Your task to perform on an android device: allow cookies in the chrome app Image 0: 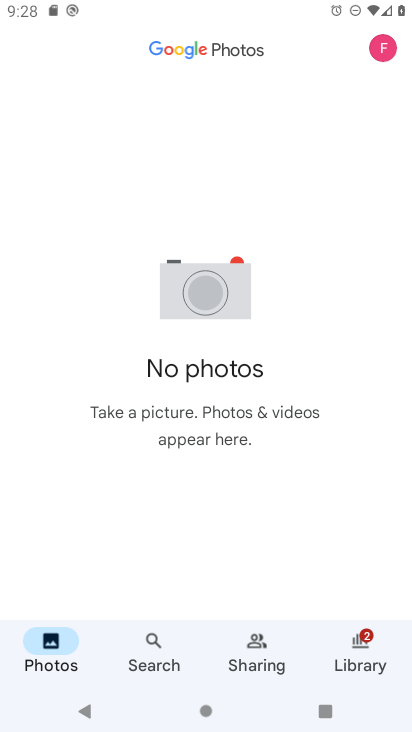
Step 0: press home button
Your task to perform on an android device: allow cookies in the chrome app Image 1: 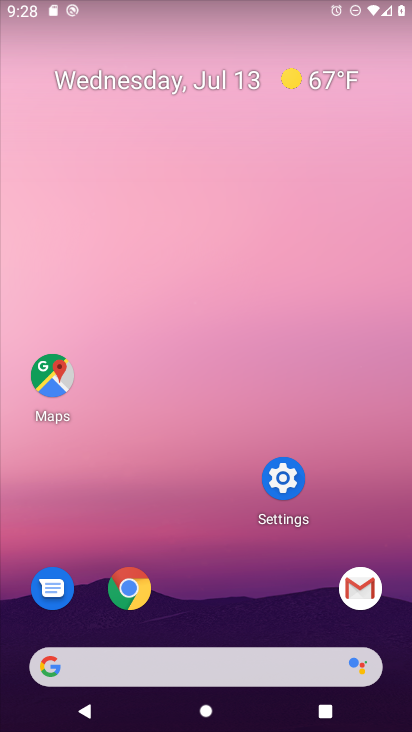
Step 1: click (122, 594)
Your task to perform on an android device: allow cookies in the chrome app Image 2: 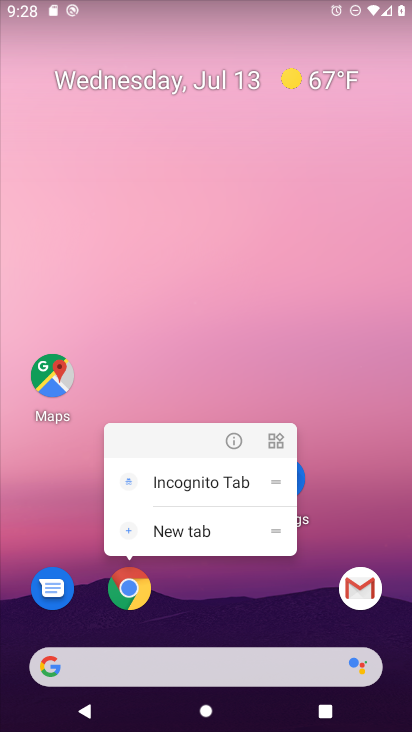
Step 2: click (122, 594)
Your task to perform on an android device: allow cookies in the chrome app Image 3: 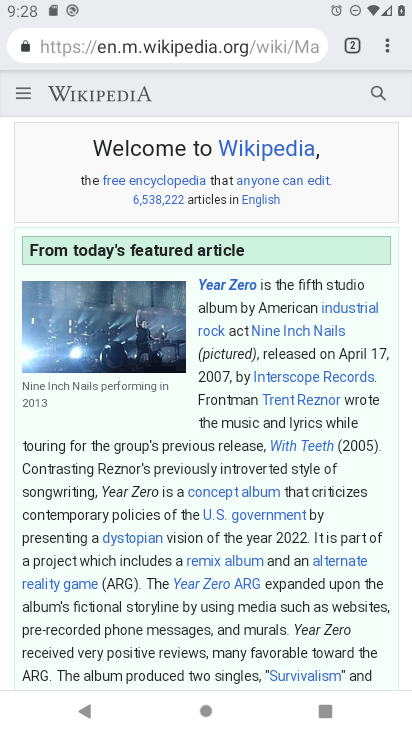
Step 3: click (387, 54)
Your task to perform on an android device: allow cookies in the chrome app Image 4: 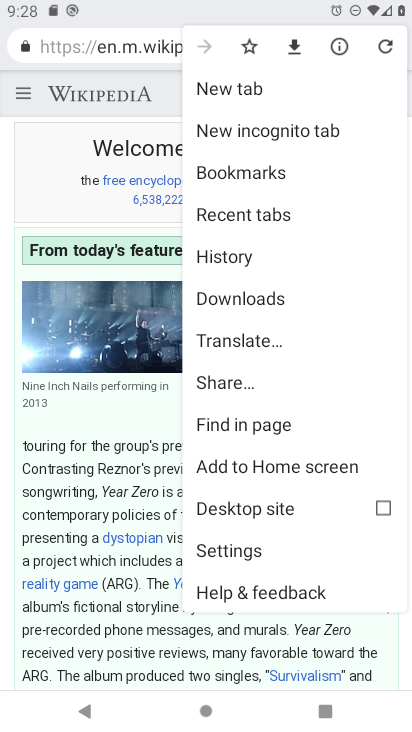
Step 4: click (225, 552)
Your task to perform on an android device: allow cookies in the chrome app Image 5: 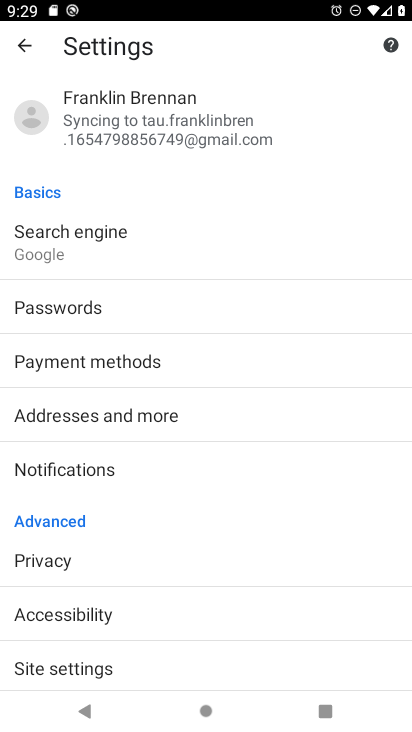
Step 5: click (83, 664)
Your task to perform on an android device: allow cookies in the chrome app Image 6: 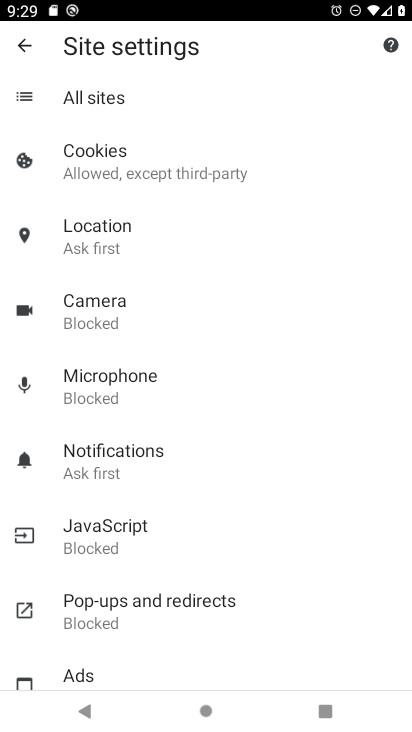
Step 6: click (145, 112)
Your task to perform on an android device: allow cookies in the chrome app Image 7: 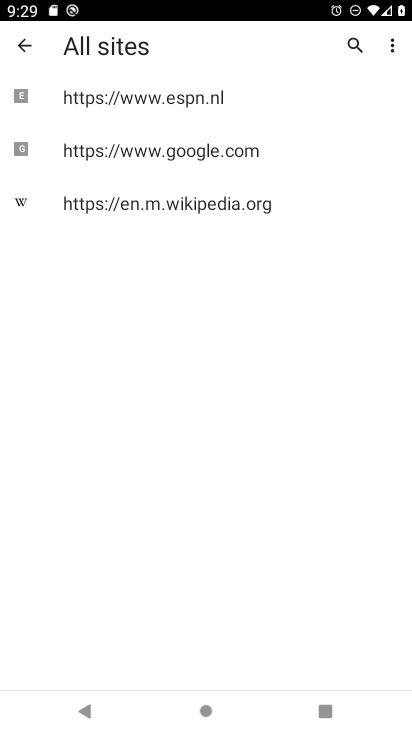
Step 7: click (32, 46)
Your task to perform on an android device: allow cookies in the chrome app Image 8: 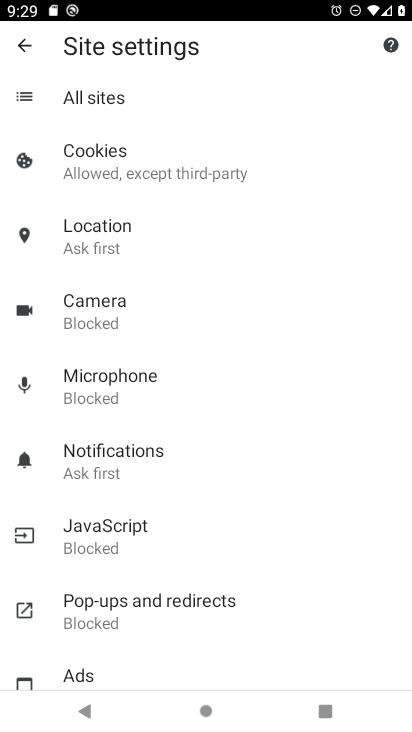
Step 8: click (109, 170)
Your task to perform on an android device: allow cookies in the chrome app Image 9: 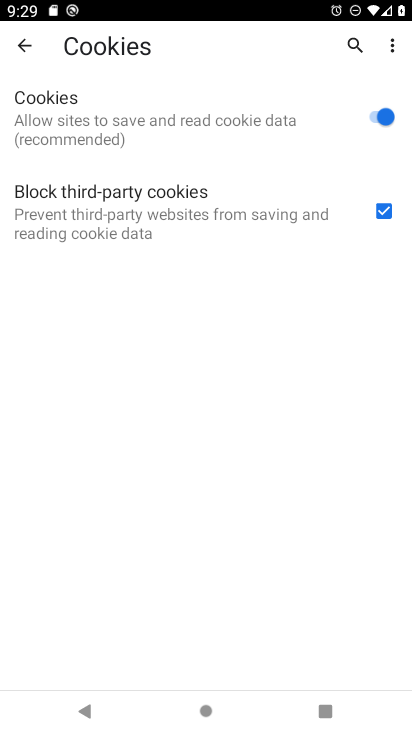
Step 9: click (370, 109)
Your task to perform on an android device: allow cookies in the chrome app Image 10: 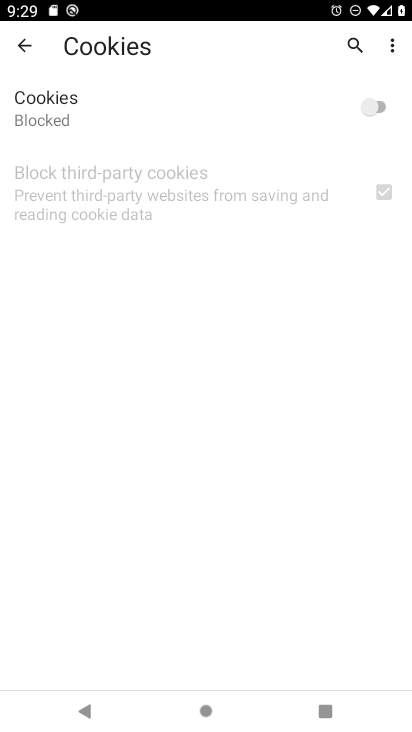
Step 10: click (370, 109)
Your task to perform on an android device: allow cookies in the chrome app Image 11: 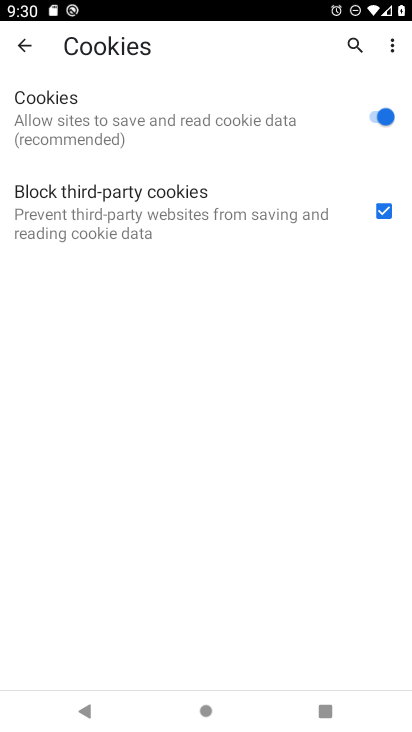
Step 11: task complete